Your task to perform on an android device: Go to accessibility settings Image 0: 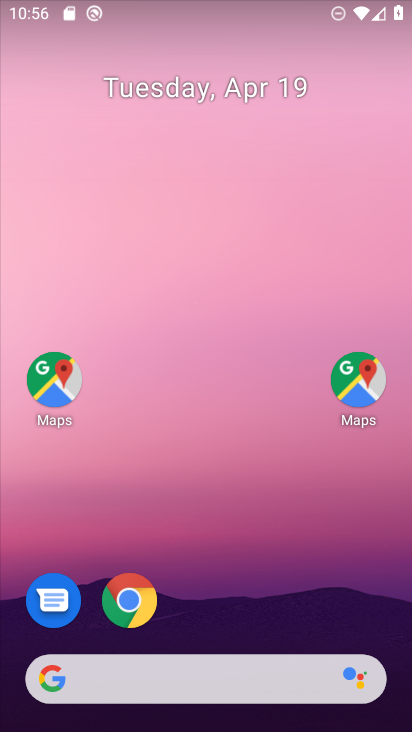
Step 0: drag from (318, 635) to (248, 0)
Your task to perform on an android device: Go to accessibility settings Image 1: 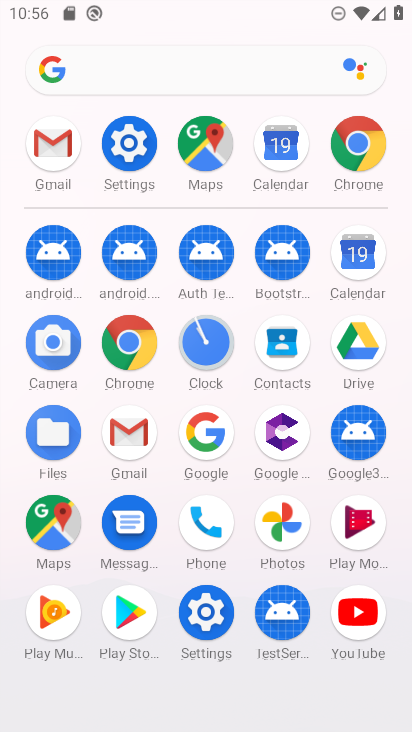
Step 1: click (214, 612)
Your task to perform on an android device: Go to accessibility settings Image 2: 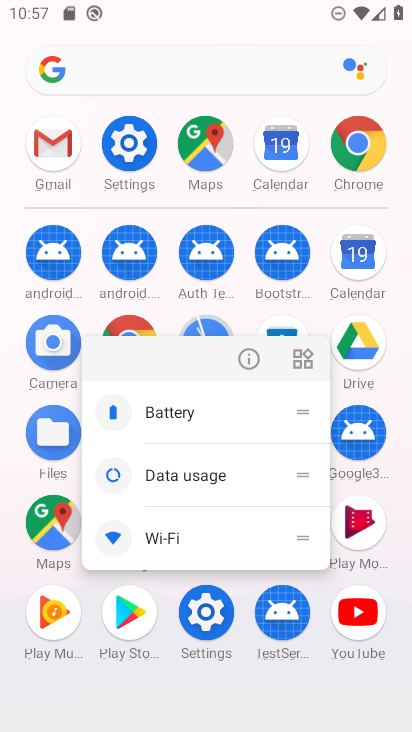
Step 2: click (137, 145)
Your task to perform on an android device: Go to accessibility settings Image 3: 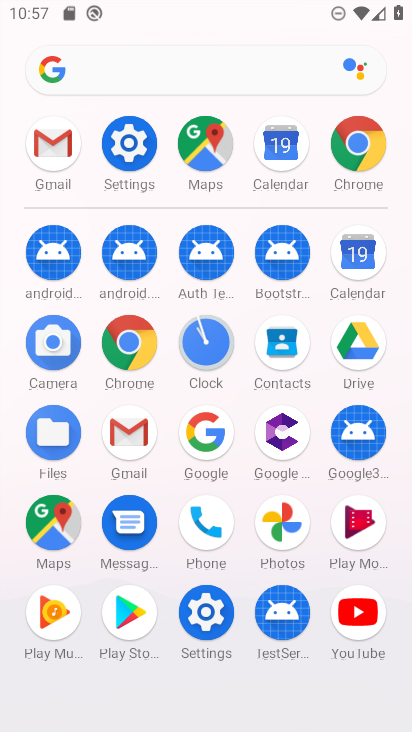
Step 3: click (137, 145)
Your task to perform on an android device: Go to accessibility settings Image 4: 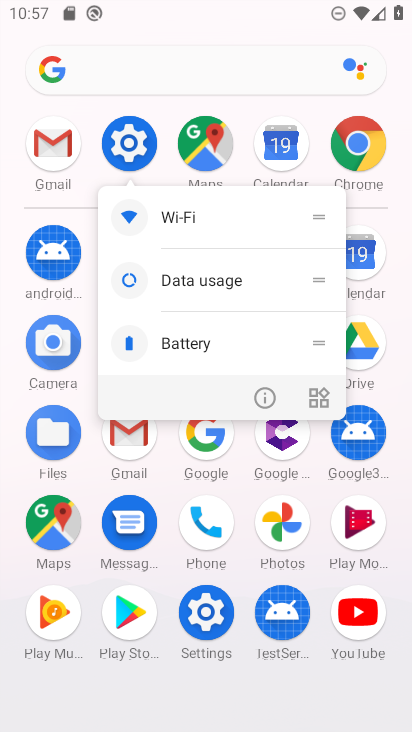
Step 4: click (219, 596)
Your task to perform on an android device: Go to accessibility settings Image 5: 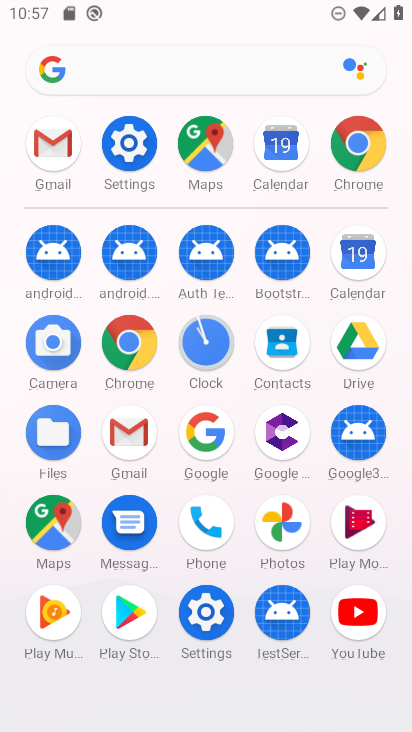
Step 5: click (204, 630)
Your task to perform on an android device: Go to accessibility settings Image 6: 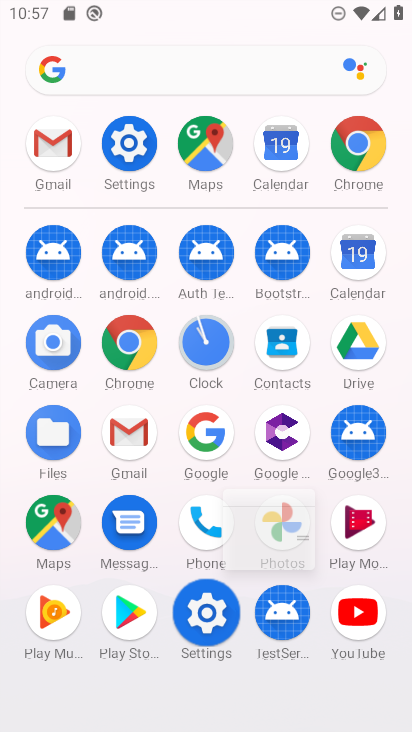
Step 6: click (204, 630)
Your task to perform on an android device: Go to accessibility settings Image 7: 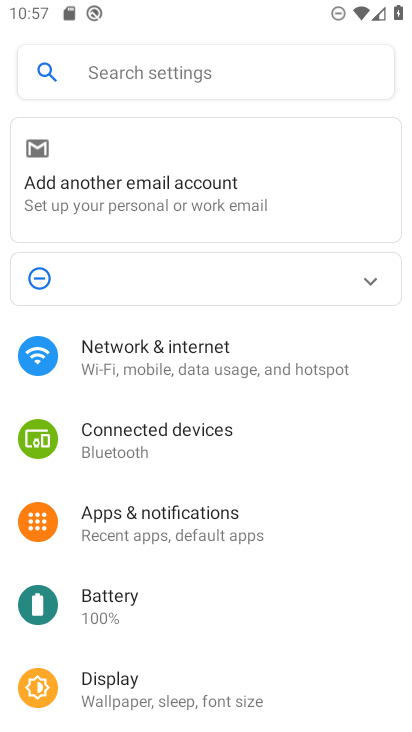
Step 7: drag from (216, 676) to (319, 116)
Your task to perform on an android device: Go to accessibility settings Image 8: 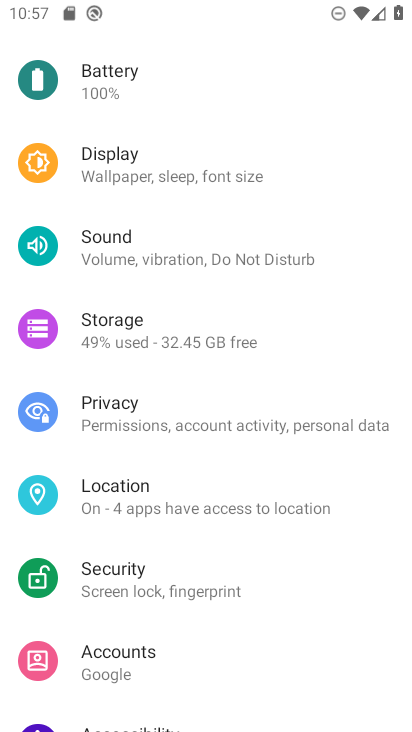
Step 8: drag from (242, 710) to (299, 245)
Your task to perform on an android device: Go to accessibility settings Image 9: 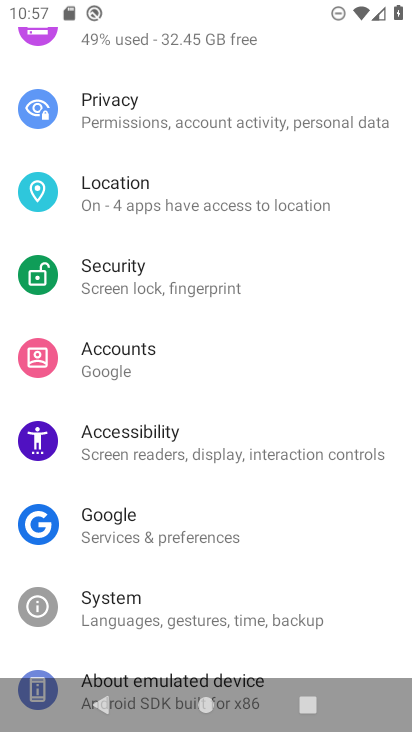
Step 9: click (169, 448)
Your task to perform on an android device: Go to accessibility settings Image 10: 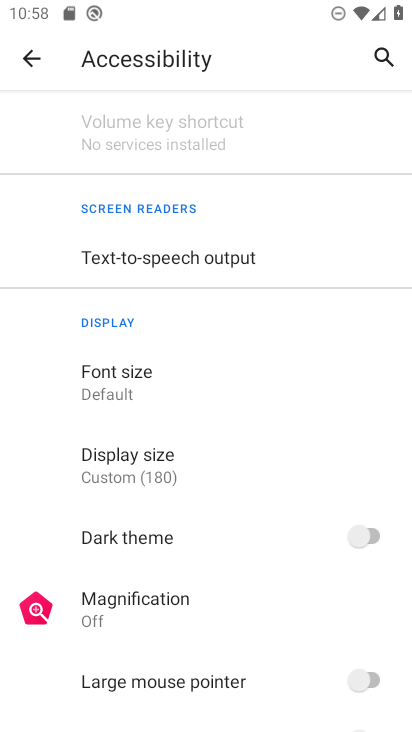
Step 10: task complete